Your task to perform on an android device: Is it going to rain tomorrow? Image 0: 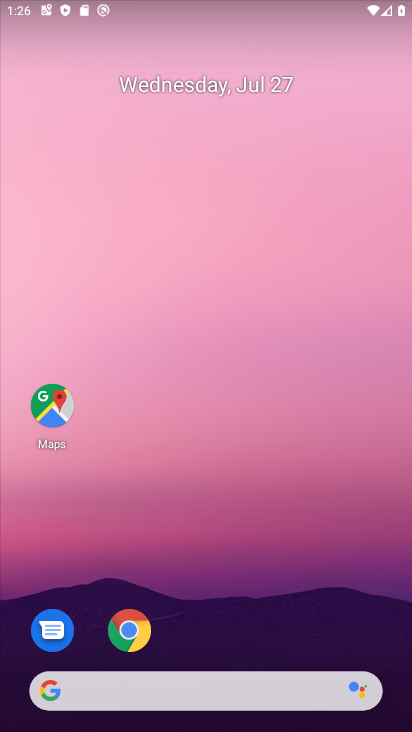
Step 0: drag from (239, 675) to (222, 84)
Your task to perform on an android device: Is it going to rain tomorrow? Image 1: 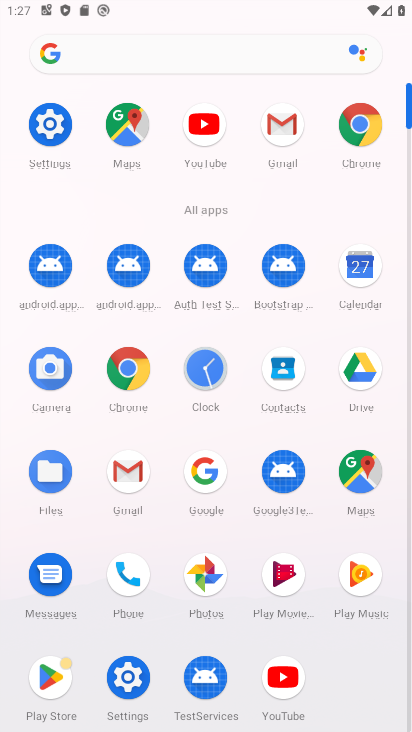
Step 1: click (373, 130)
Your task to perform on an android device: Is it going to rain tomorrow? Image 2: 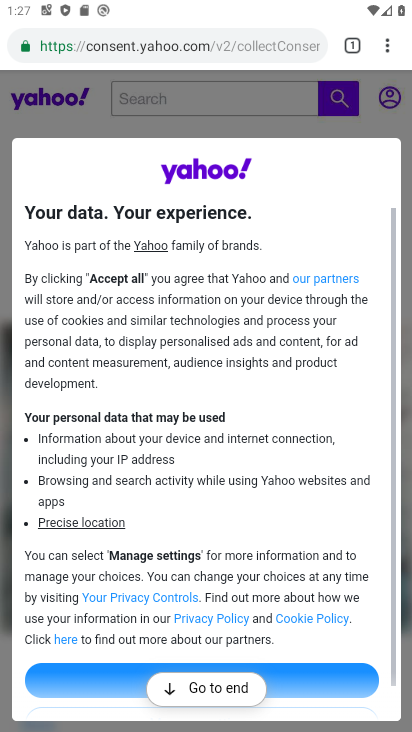
Step 2: click (201, 41)
Your task to perform on an android device: Is it going to rain tomorrow? Image 3: 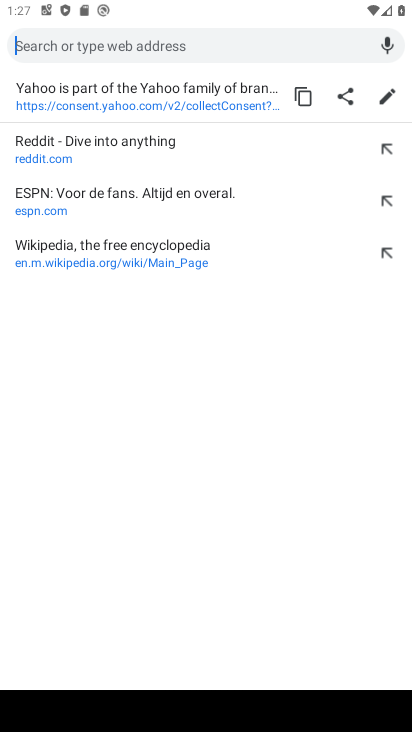
Step 3: type "weather tommorrow"
Your task to perform on an android device: Is it going to rain tomorrow? Image 4: 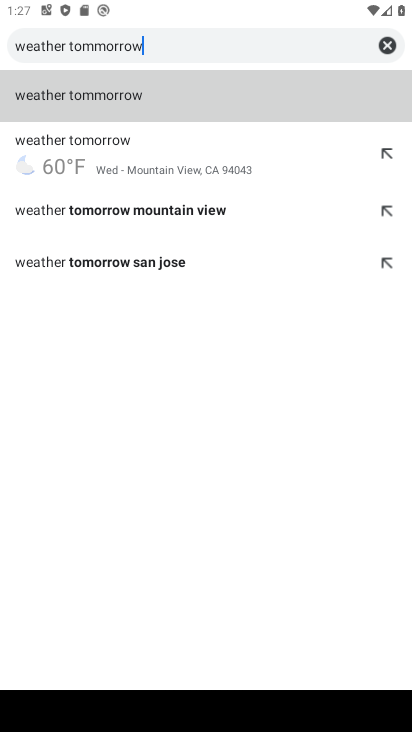
Step 4: click (96, 108)
Your task to perform on an android device: Is it going to rain tomorrow? Image 5: 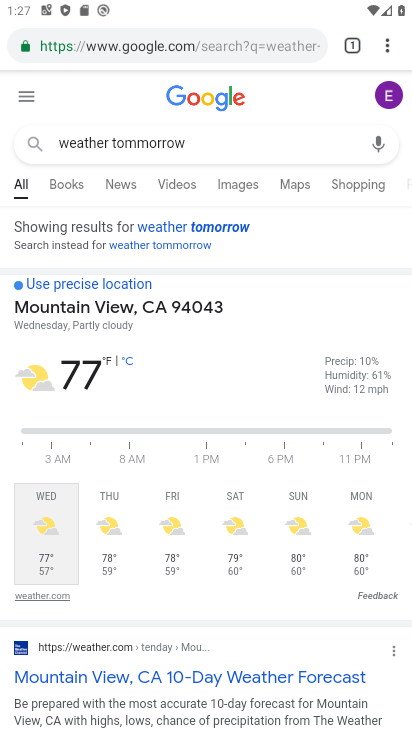
Step 5: task complete